Your task to perform on an android device: empty trash in the gmail app Image 0: 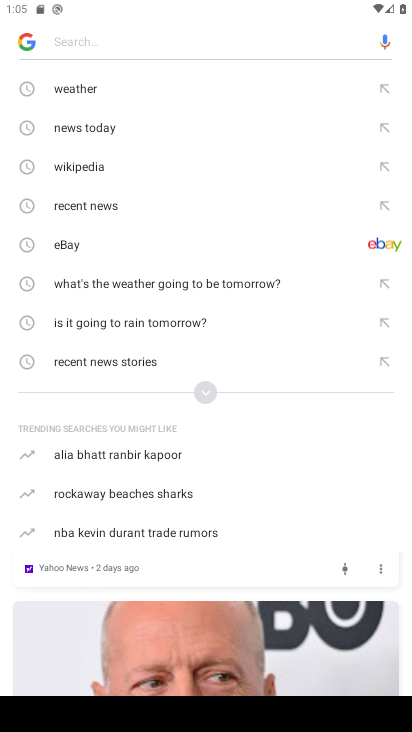
Step 0: press home button
Your task to perform on an android device: empty trash in the gmail app Image 1: 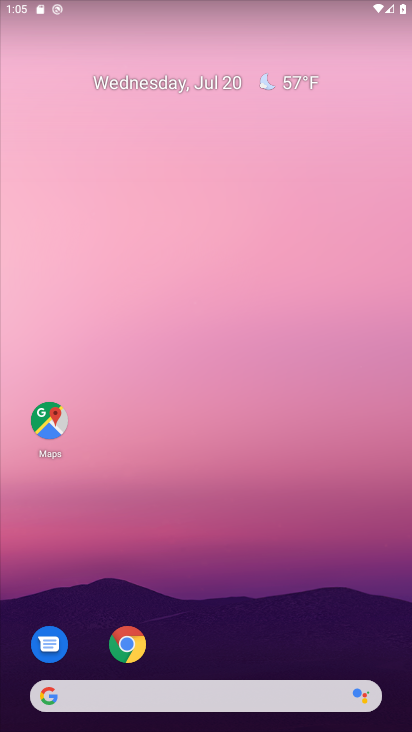
Step 1: drag from (302, 516) to (316, 326)
Your task to perform on an android device: empty trash in the gmail app Image 2: 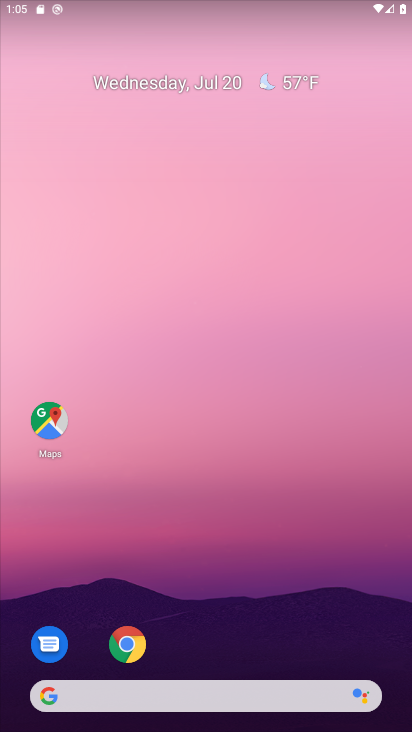
Step 2: drag from (278, 503) to (312, 264)
Your task to perform on an android device: empty trash in the gmail app Image 3: 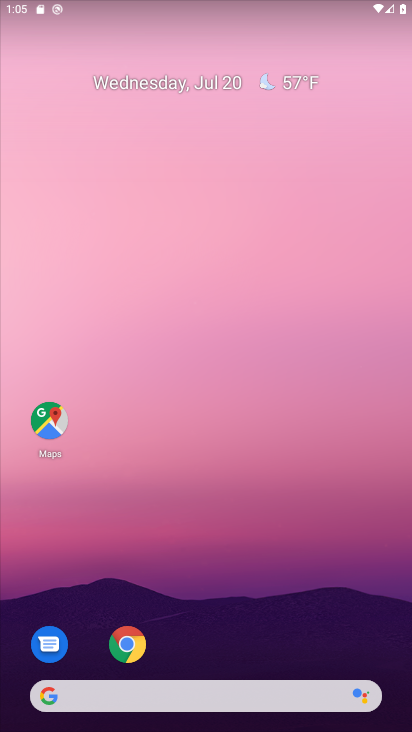
Step 3: drag from (238, 591) to (275, 288)
Your task to perform on an android device: empty trash in the gmail app Image 4: 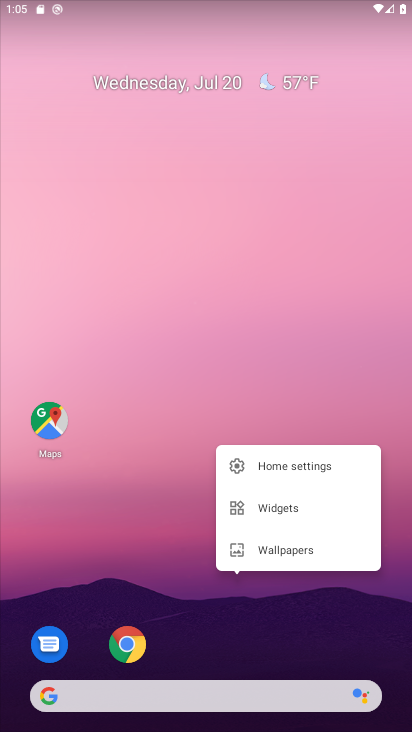
Step 4: click (237, 324)
Your task to perform on an android device: empty trash in the gmail app Image 5: 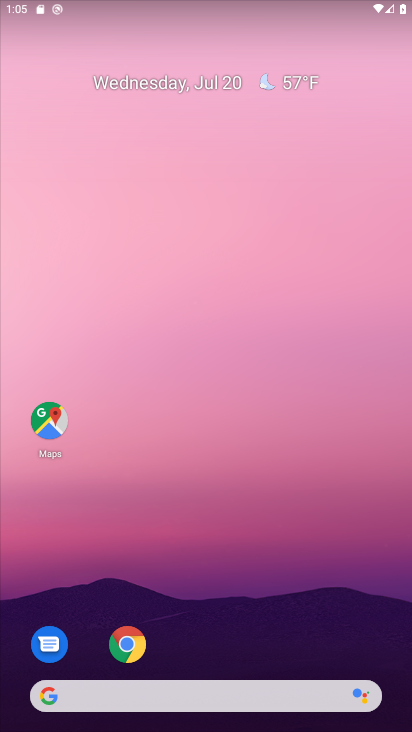
Step 5: drag from (175, 516) to (226, 164)
Your task to perform on an android device: empty trash in the gmail app Image 6: 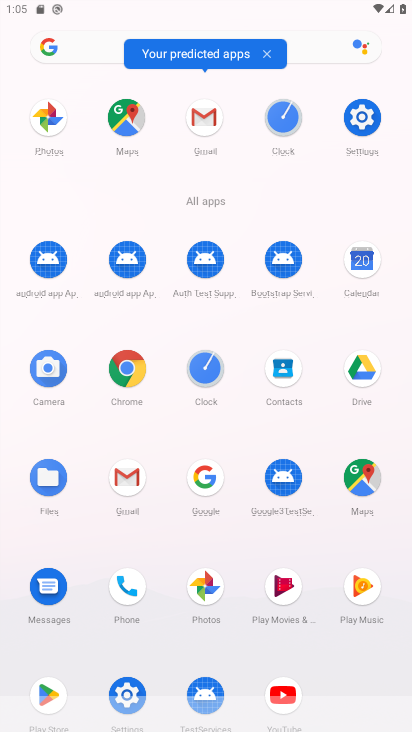
Step 6: click (203, 132)
Your task to perform on an android device: empty trash in the gmail app Image 7: 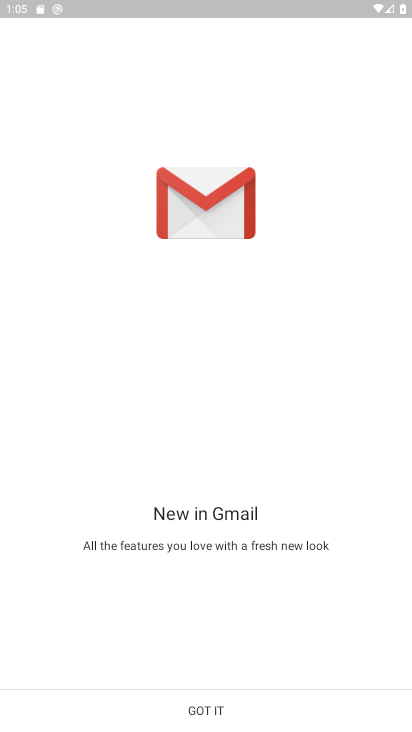
Step 7: click (188, 714)
Your task to perform on an android device: empty trash in the gmail app Image 8: 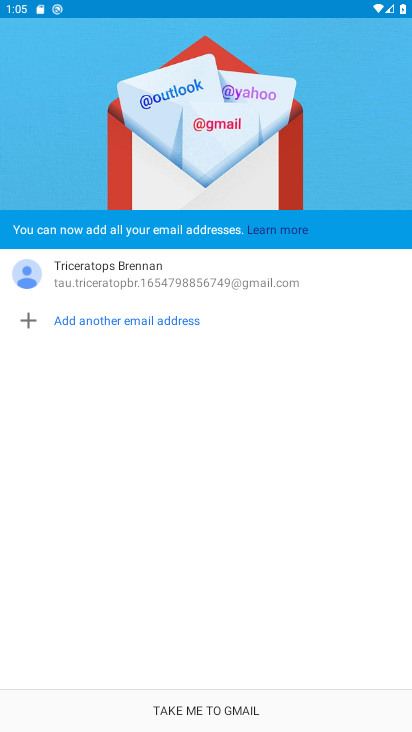
Step 8: click (210, 719)
Your task to perform on an android device: empty trash in the gmail app Image 9: 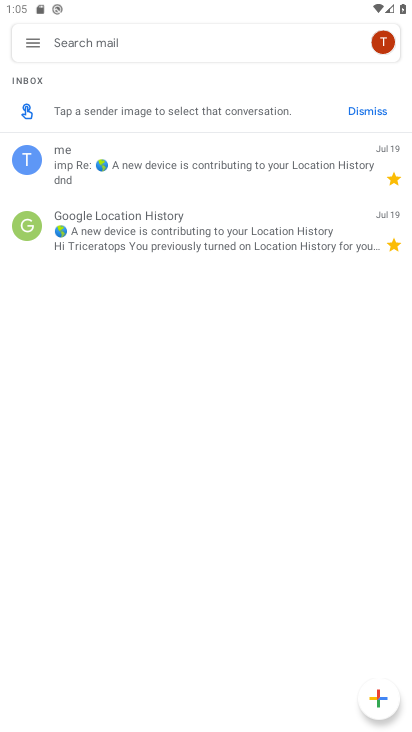
Step 9: click (26, 46)
Your task to perform on an android device: empty trash in the gmail app Image 10: 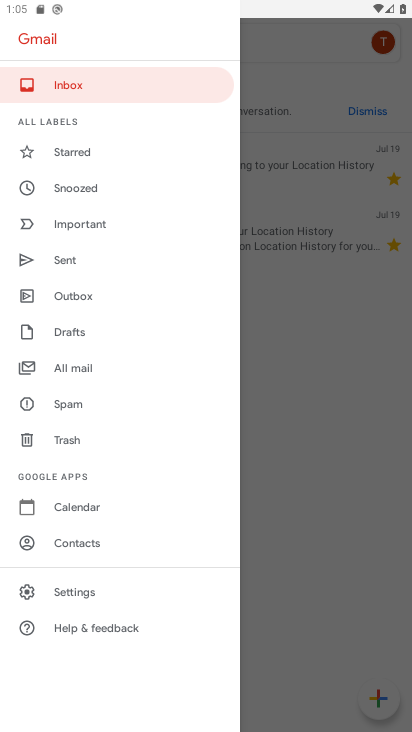
Step 10: click (63, 435)
Your task to perform on an android device: empty trash in the gmail app Image 11: 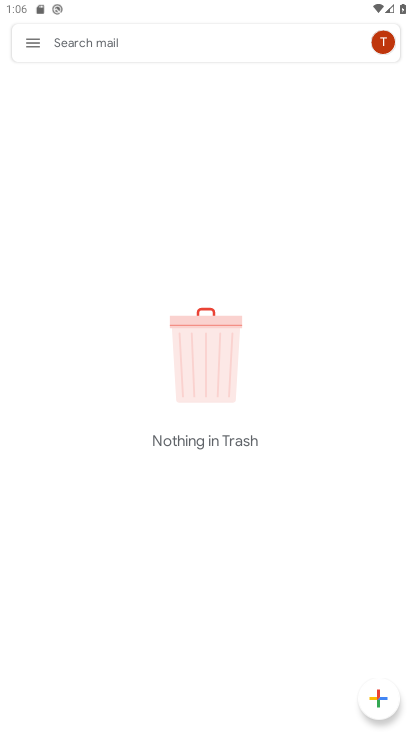
Step 11: task complete